Your task to perform on an android device: add a label to a message in the gmail app Image 0: 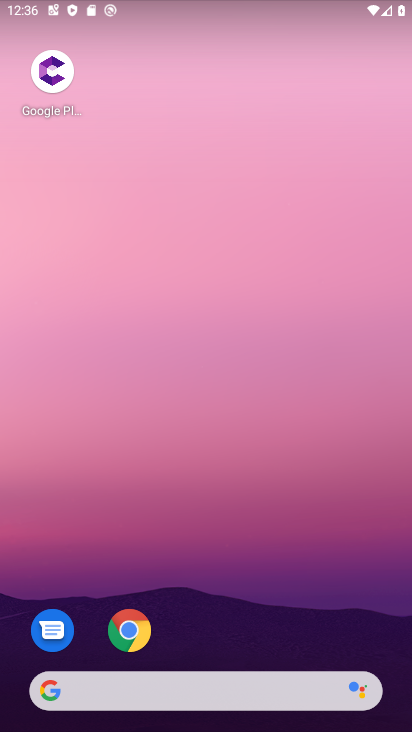
Step 0: drag from (228, 610) to (302, 205)
Your task to perform on an android device: add a label to a message in the gmail app Image 1: 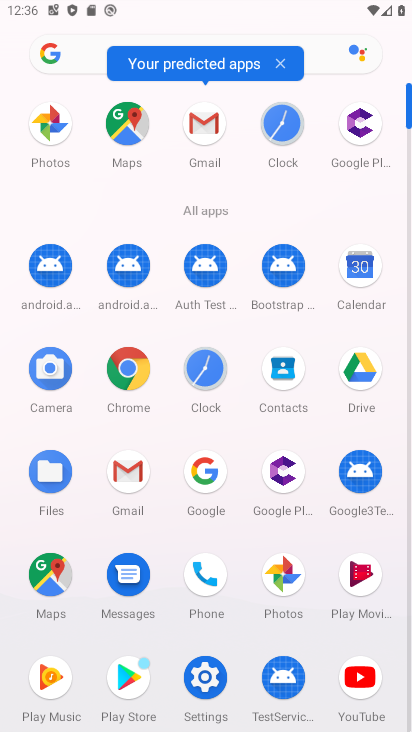
Step 1: click (125, 460)
Your task to perform on an android device: add a label to a message in the gmail app Image 2: 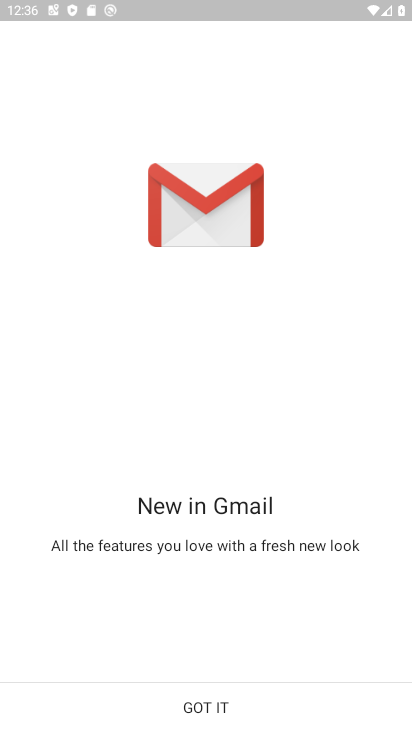
Step 2: click (239, 714)
Your task to perform on an android device: add a label to a message in the gmail app Image 3: 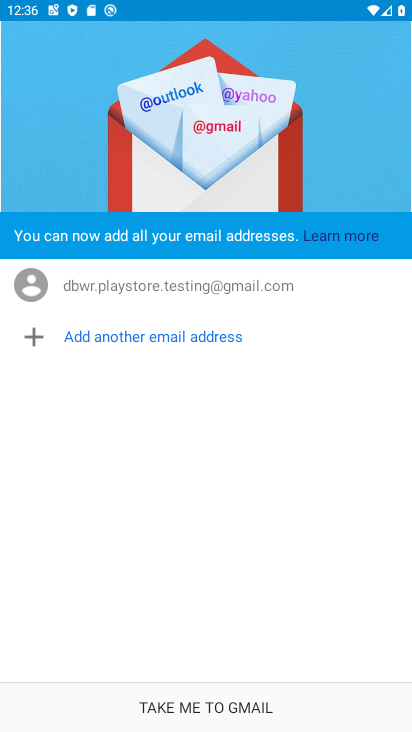
Step 3: click (239, 711)
Your task to perform on an android device: add a label to a message in the gmail app Image 4: 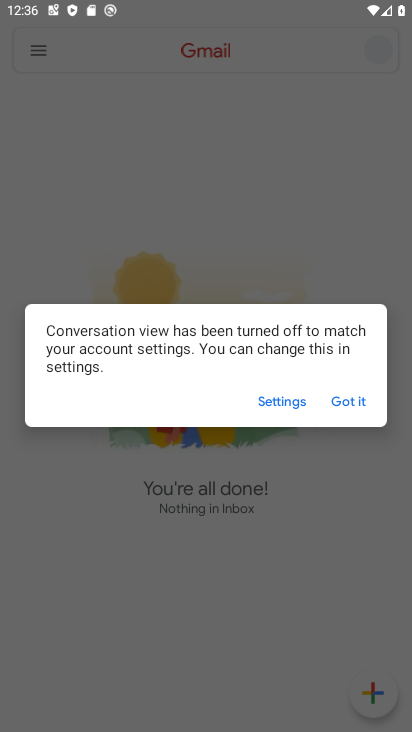
Step 4: click (344, 412)
Your task to perform on an android device: add a label to a message in the gmail app Image 5: 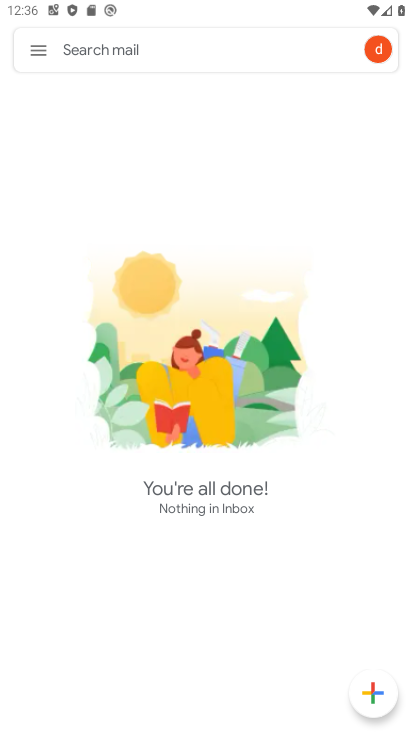
Step 5: click (46, 60)
Your task to perform on an android device: add a label to a message in the gmail app Image 6: 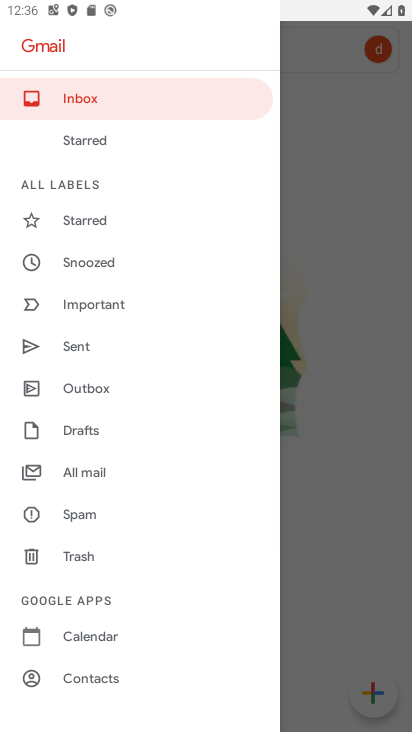
Step 6: click (125, 466)
Your task to perform on an android device: add a label to a message in the gmail app Image 7: 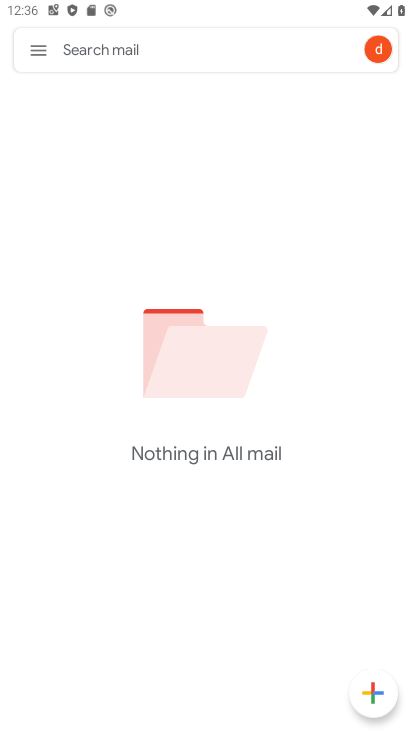
Step 7: task complete